Your task to perform on an android device: open a new tab in the chrome app Image 0: 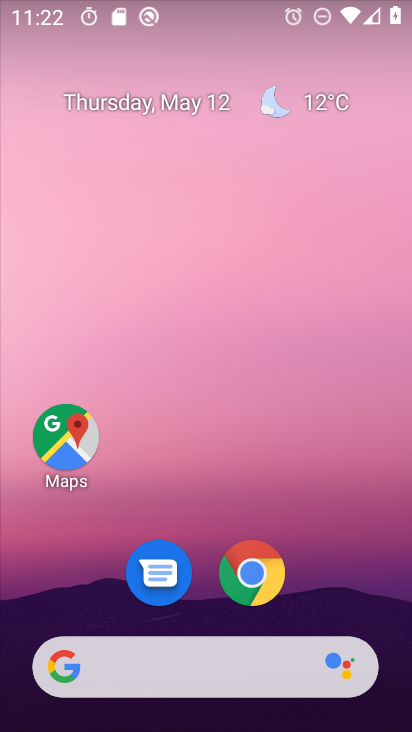
Step 0: click (249, 563)
Your task to perform on an android device: open a new tab in the chrome app Image 1: 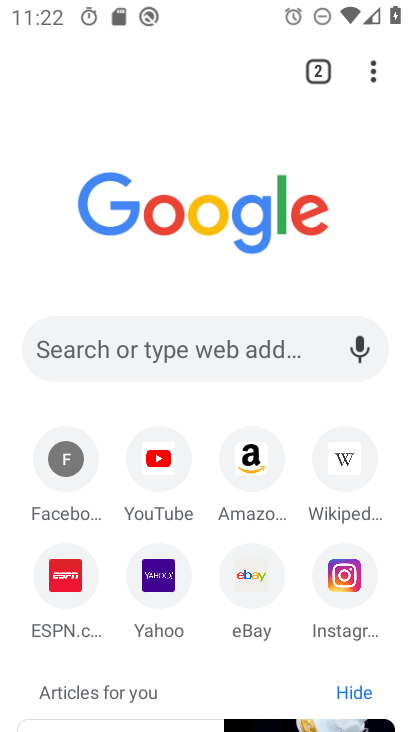
Step 1: click (375, 63)
Your task to perform on an android device: open a new tab in the chrome app Image 2: 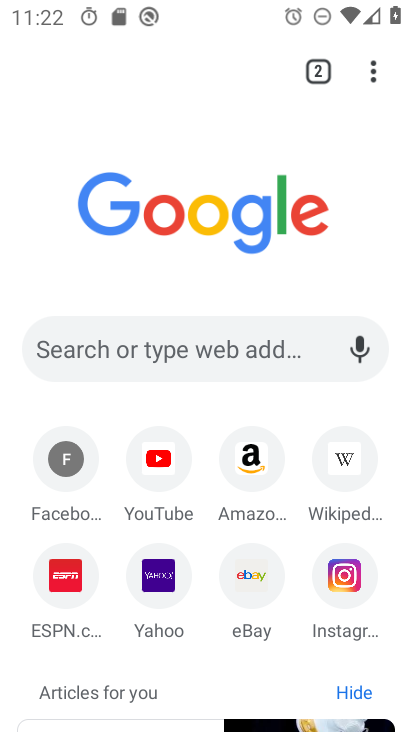
Step 2: click (373, 70)
Your task to perform on an android device: open a new tab in the chrome app Image 3: 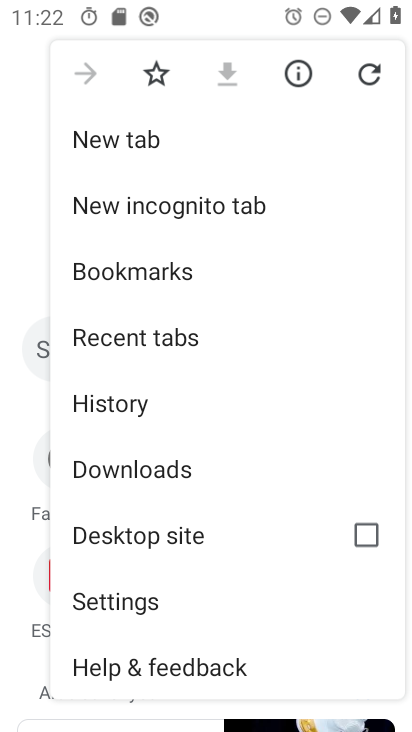
Step 3: click (93, 138)
Your task to perform on an android device: open a new tab in the chrome app Image 4: 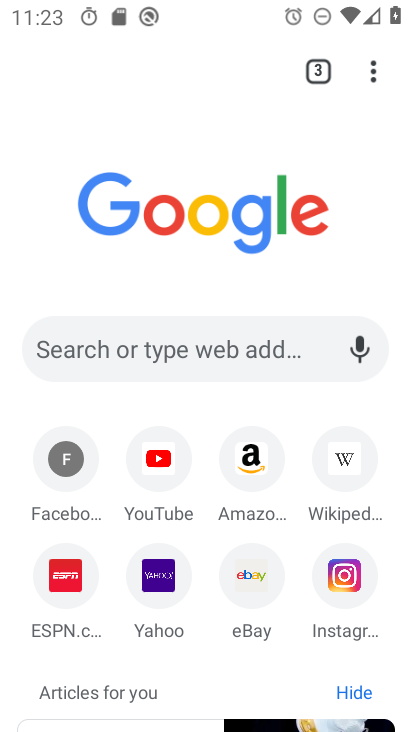
Step 4: click (375, 71)
Your task to perform on an android device: open a new tab in the chrome app Image 5: 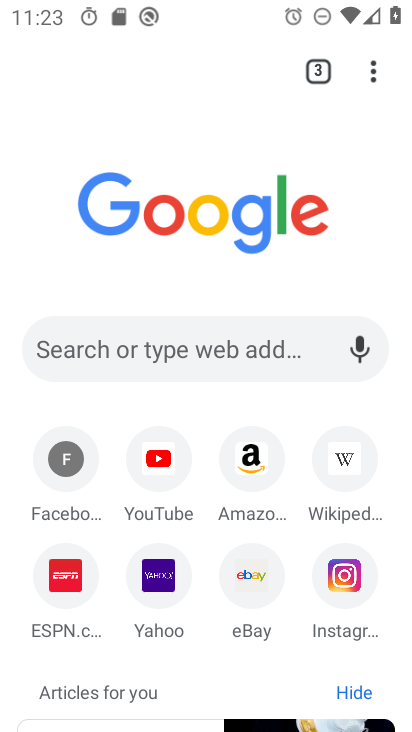
Step 5: task complete